Your task to perform on an android device: Show me popular games on the Play Store Image 0: 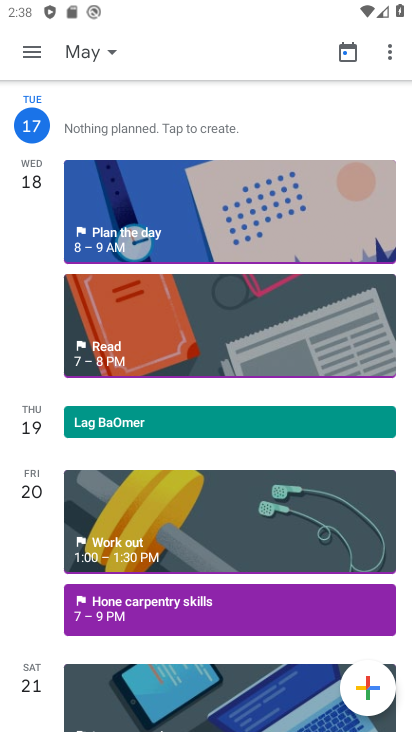
Step 0: press home button
Your task to perform on an android device: Show me popular games on the Play Store Image 1: 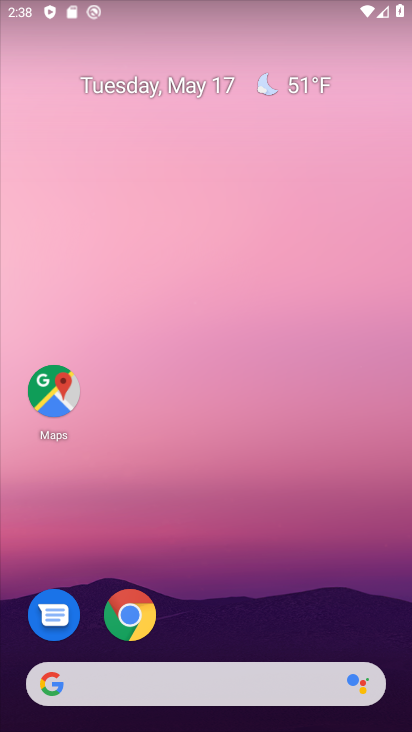
Step 1: drag from (227, 629) to (285, 113)
Your task to perform on an android device: Show me popular games on the Play Store Image 2: 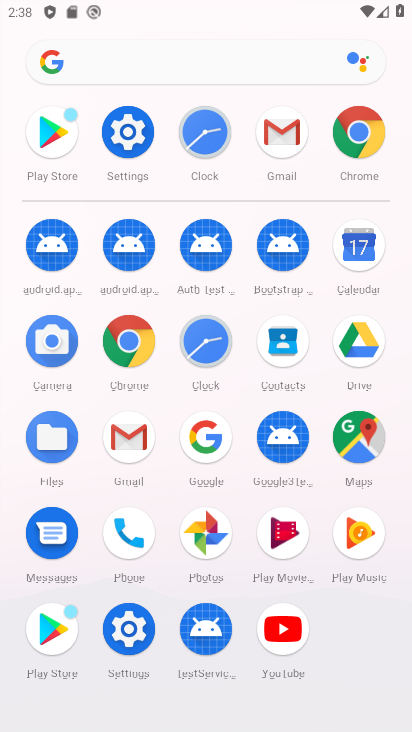
Step 2: click (41, 622)
Your task to perform on an android device: Show me popular games on the Play Store Image 3: 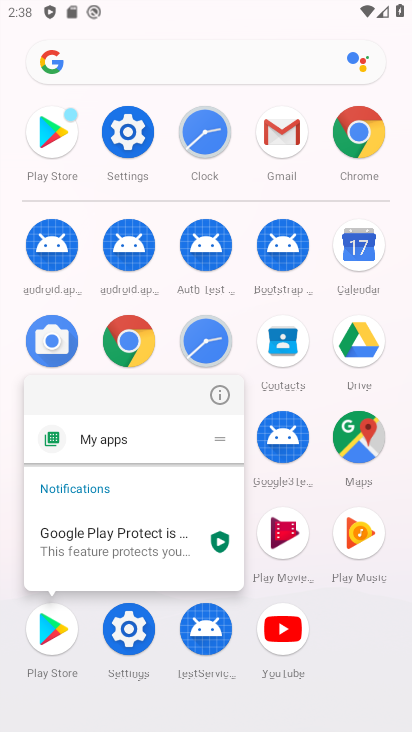
Step 3: click (56, 626)
Your task to perform on an android device: Show me popular games on the Play Store Image 4: 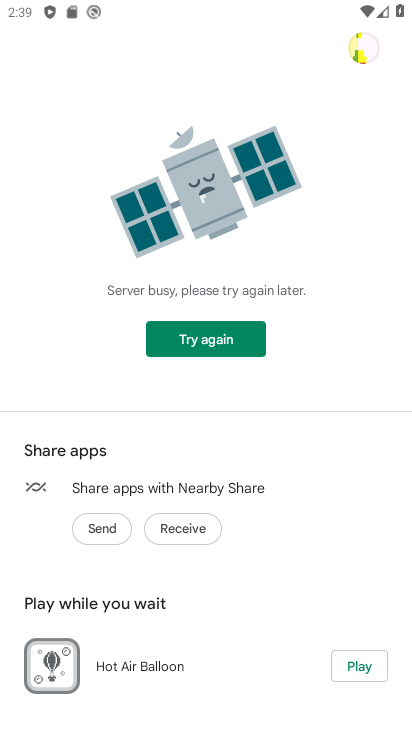
Step 4: click (209, 346)
Your task to perform on an android device: Show me popular games on the Play Store Image 5: 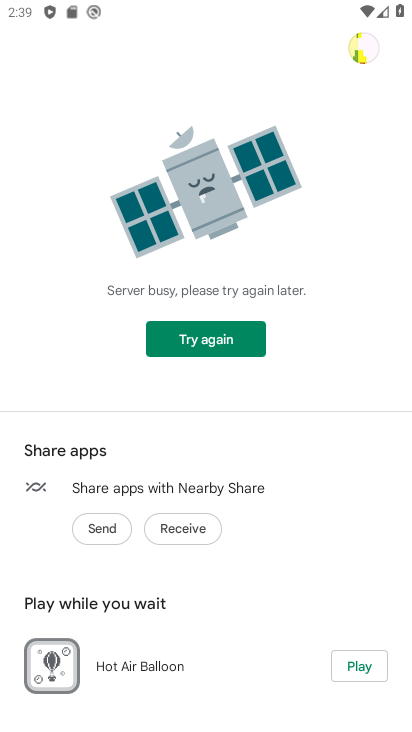
Step 5: task complete